Your task to perform on an android device: set default search engine in the chrome app Image 0: 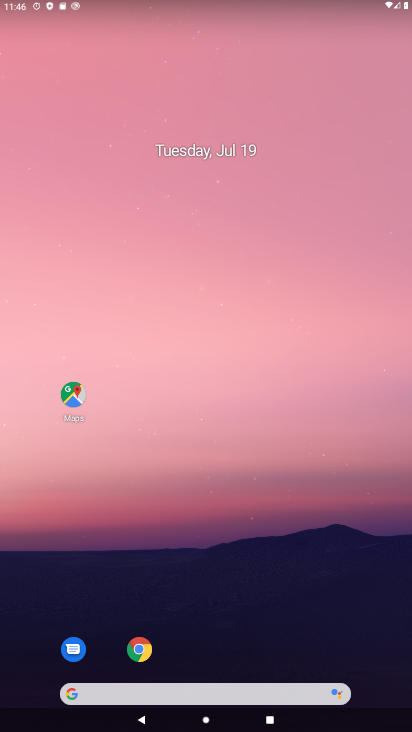
Step 0: drag from (232, 729) to (228, 11)
Your task to perform on an android device: set default search engine in the chrome app Image 1: 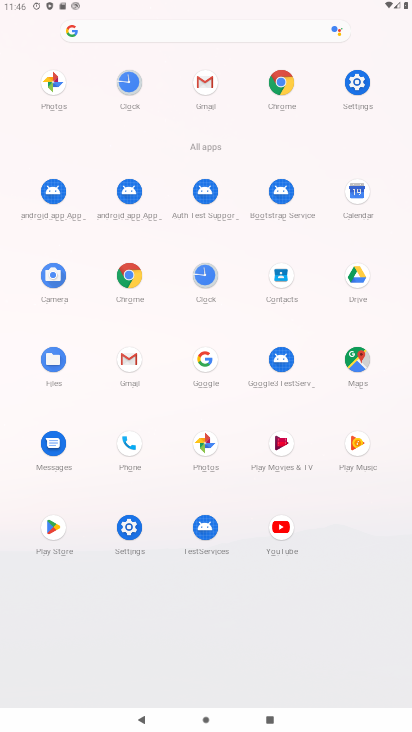
Step 1: click (129, 274)
Your task to perform on an android device: set default search engine in the chrome app Image 2: 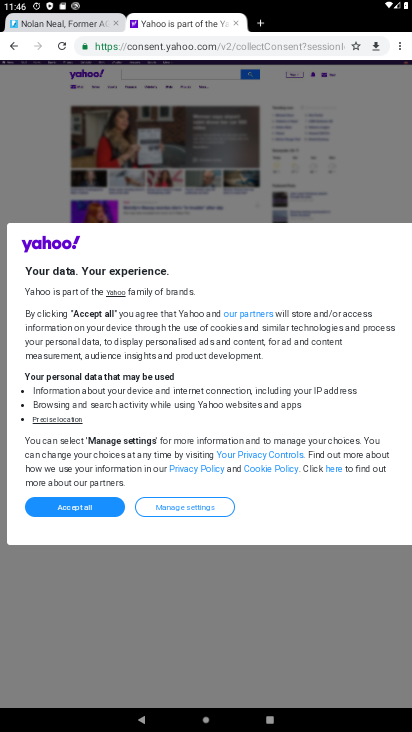
Step 2: click (403, 48)
Your task to perform on an android device: set default search engine in the chrome app Image 3: 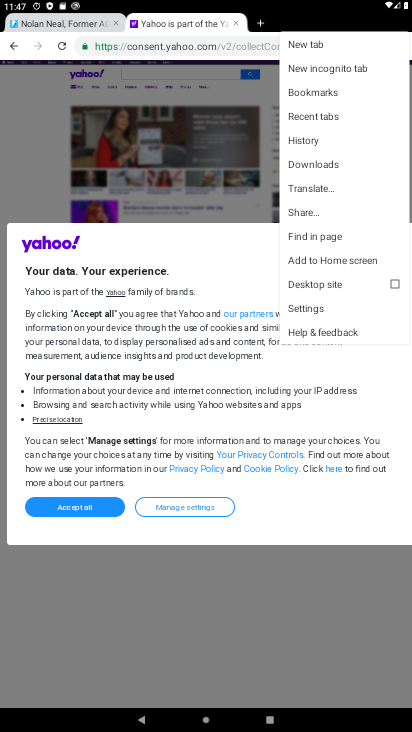
Step 3: click (302, 307)
Your task to perform on an android device: set default search engine in the chrome app Image 4: 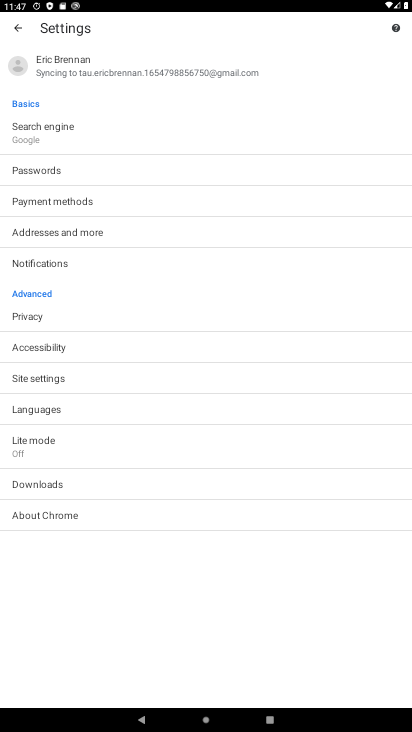
Step 4: click (43, 128)
Your task to perform on an android device: set default search engine in the chrome app Image 5: 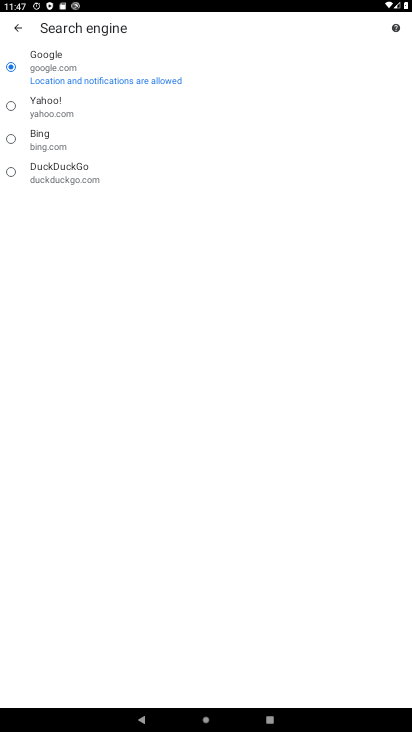
Step 5: click (5, 107)
Your task to perform on an android device: set default search engine in the chrome app Image 6: 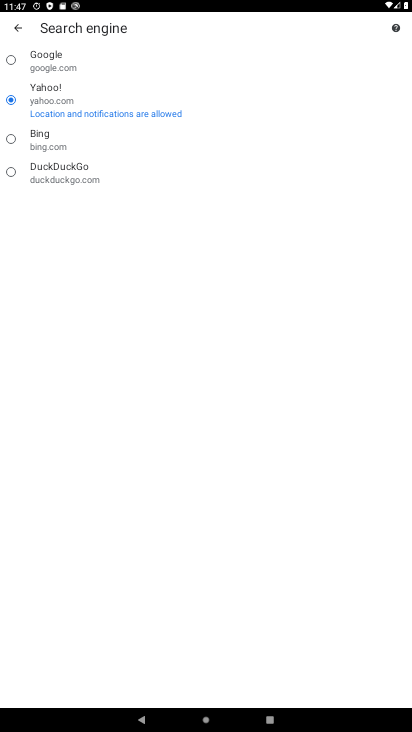
Step 6: task complete